Your task to perform on an android device: check out phone information Image 0: 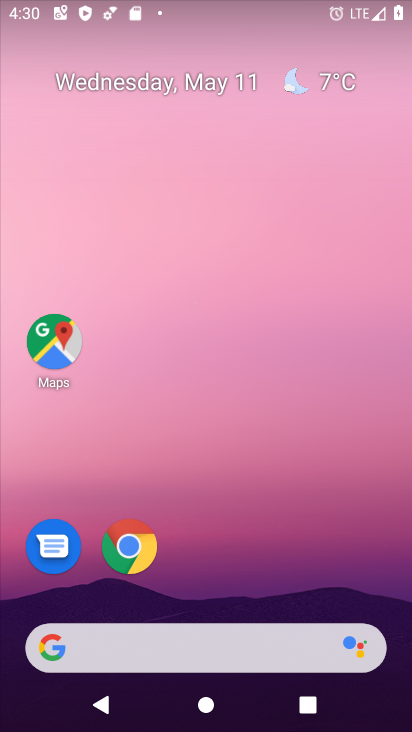
Step 0: drag from (246, 640) to (325, 8)
Your task to perform on an android device: check out phone information Image 1: 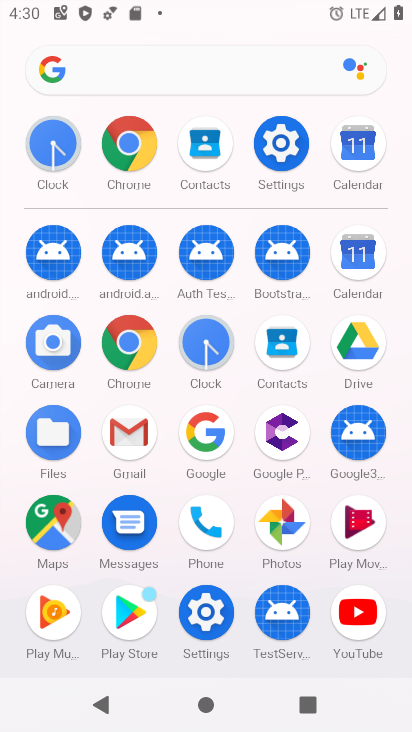
Step 1: click (276, 143)
Your task to perform on an android device: check out phone information Image 2: 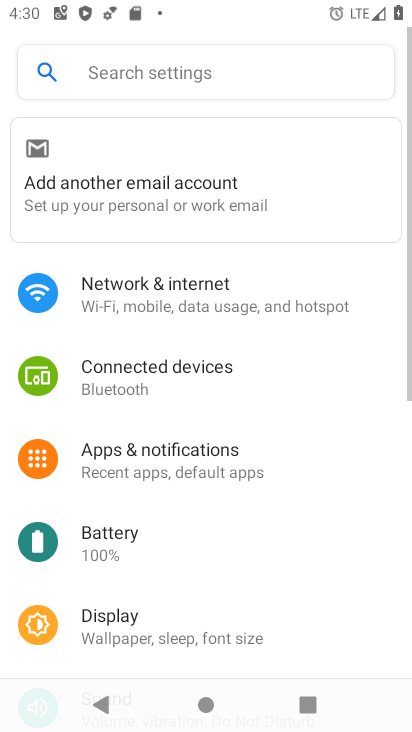
Step 2: drag from (279, 650) to (370, 143)
Your task to perform on an android device: check out phone information Image 3: 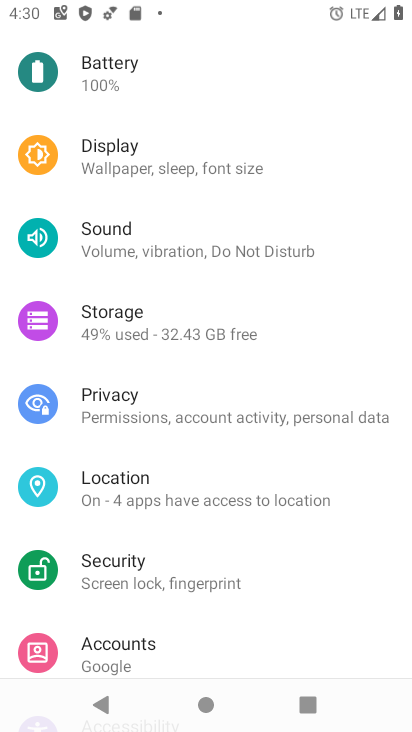
Step 3: drag from (329, 676) to (374, 195)
Your task to perform on an android device: check out phone information Image 4: 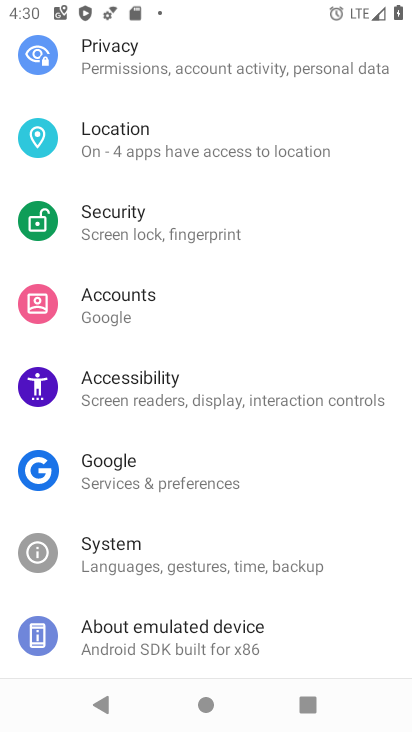
Step 4: drag from (281, 639) to (348, 116)
Your task to perform on an android device: check out phone information Image 5: 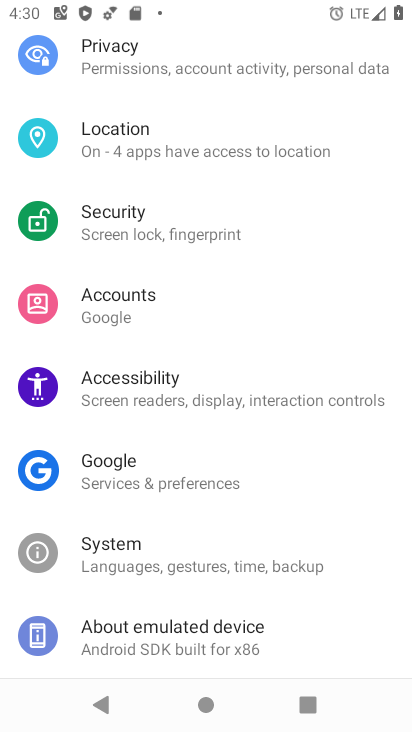
Step 5: click (234, 629)
Your task to perform on an android device: check out phone information Image 6: 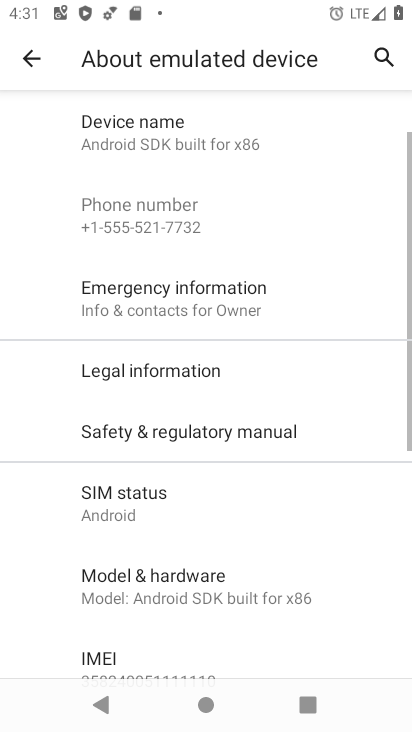
Step 6: task complete